Your task to perform on an android device: Search for "logitech g502" on bestbuy, select the first entry, and add it to the cart. Image 0: 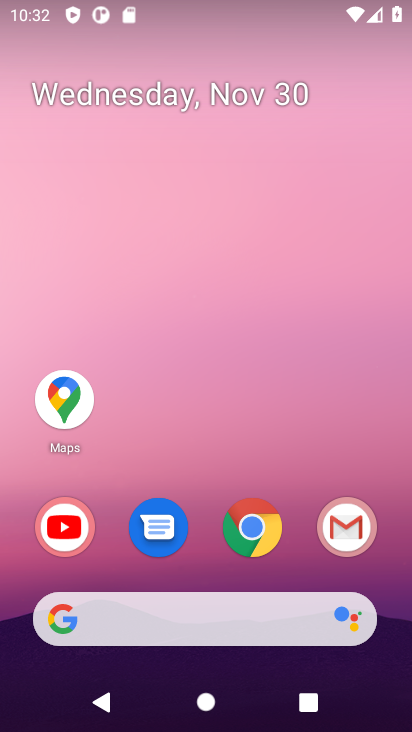
Step 0: click (248, 526)
Your task to perform on an android device: Search for "logitech g502" on bestbuy, select the first entry, and add it to the cart. Image 1: 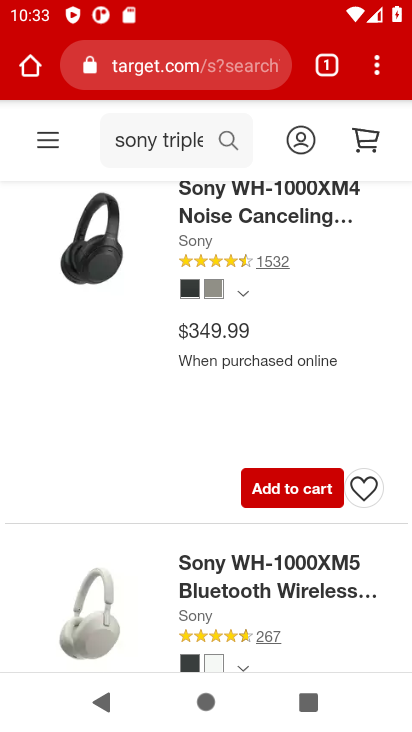
Step 1: click (172, 62)
Your task to perform on an android device: Search for "logitech g502" on bestbuy, select the first entry, and add it to the cart. Image 2: 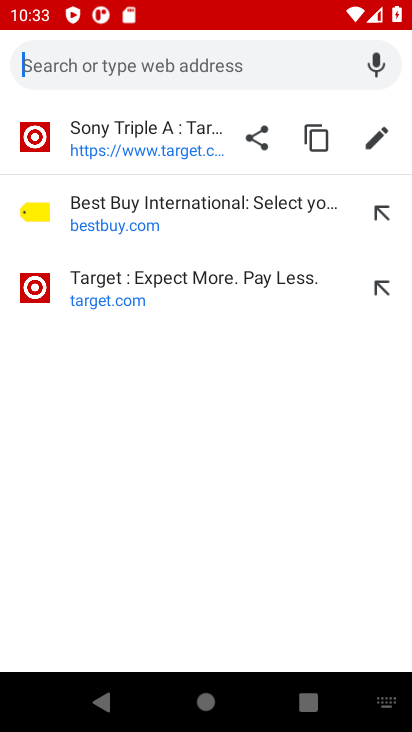
Step 2: click (100, 218)
Your task to perform on an android device: Search for "logitech g502" on bestbuy, select the first entry, and add it to the cart. Image 3: 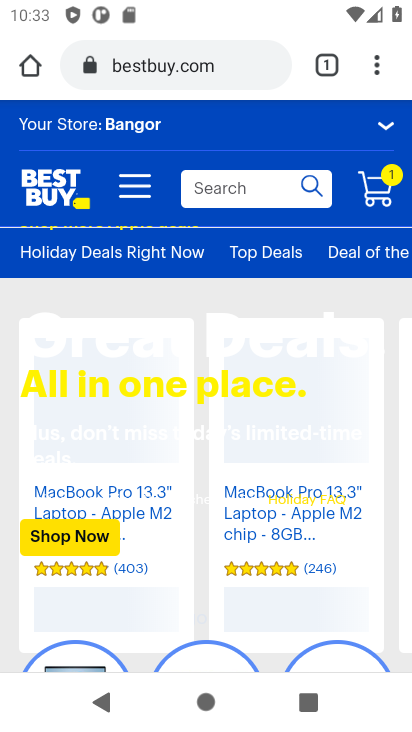
Step 3: click (226, 192)
Your task to perform on an android device: Search for "logitech g502" on bestbuy, select the first entry, and add it to the cart. Image 4: 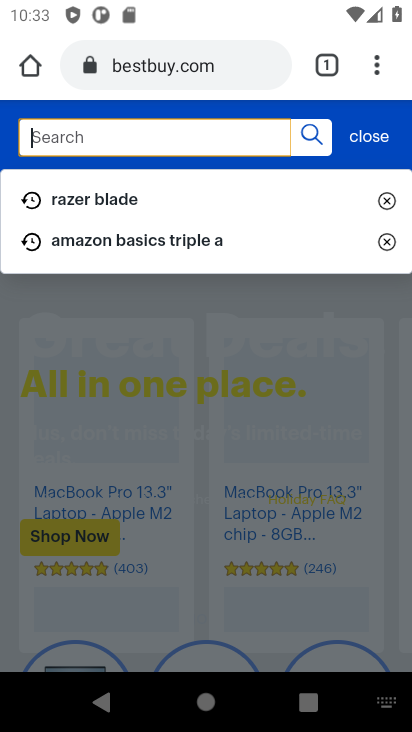
Step 4: type "logitech g502"
Your task to perform on an android device: Search for "logitech g502" on bestbuy, select the first entry, and add it to the cart. Image 5: 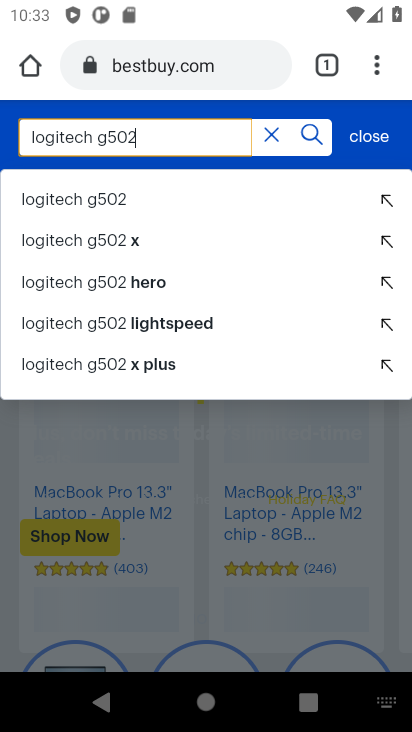
Step 5: click (86, 206)
Your task to perform on an android device: Search for "logitech g502" on bestbuy, select the first entry, and add it to the cart. Image 6: 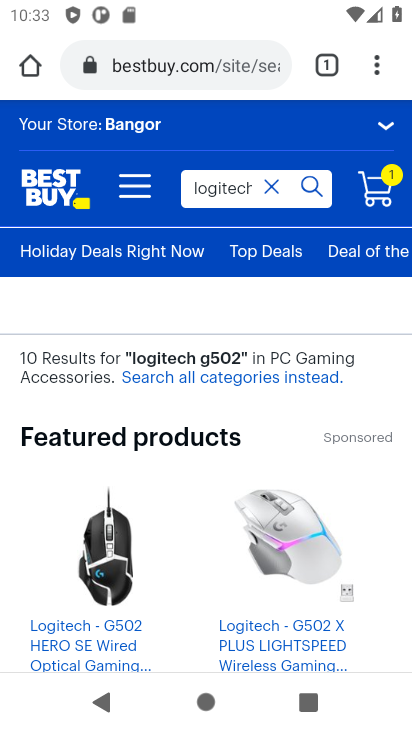
Step 6: drag from (354, 481) to (341, 222)
Your task to perform on an android device: Search for "logitech g502" on bestbuy, select the first entry, and add it to the cart. Image 7: 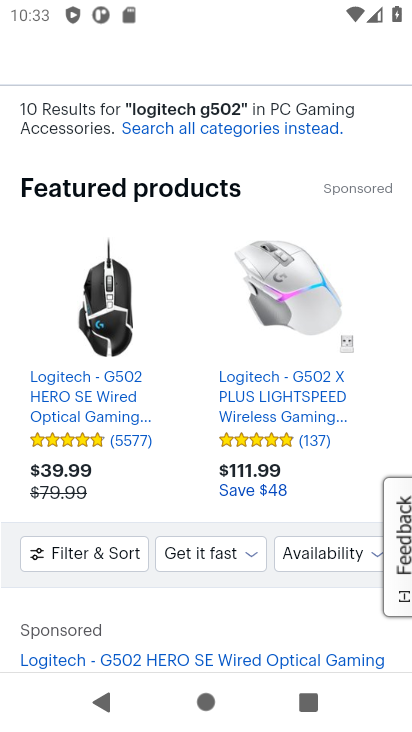
Step 7: drag from (299, 470) to (288, 159)
Your task to perform on an android device: Search for "logitech g502" on bestbuy, select the first entry, and add it to the cart. Image 8: 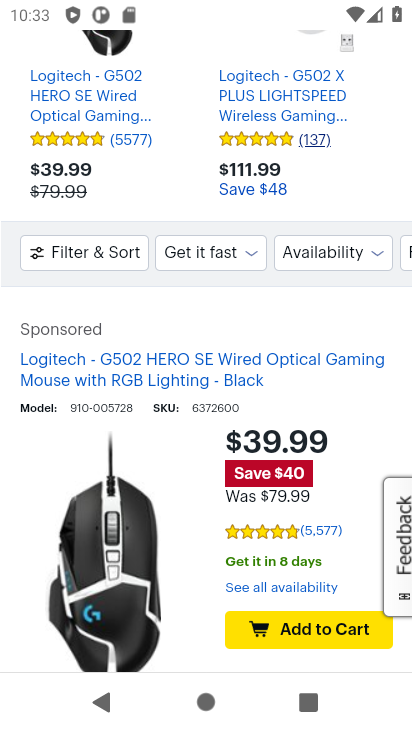
Step 8: drag from (256, 451) to (253, 225)
Your task to perform on an android device: Search for "logitech g502" on bestbuy, select the first entry, and add it to the cart. Image 9: 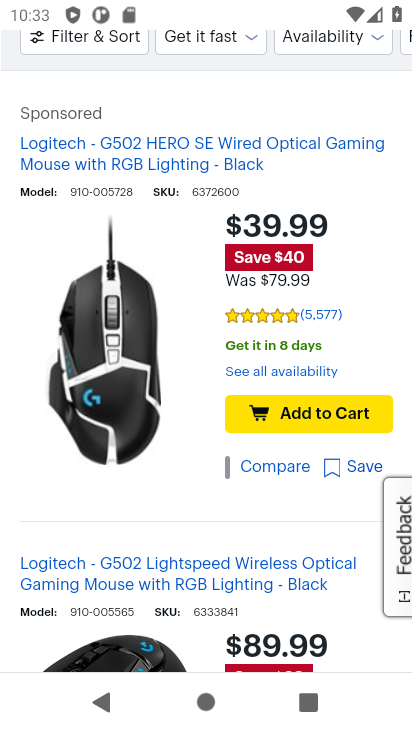
Step 9: click (291, 418)
Your task to perform on an android device: Search for "logitech g502" on bestbuy, select the first entry, and add it to the cart. Image 10: 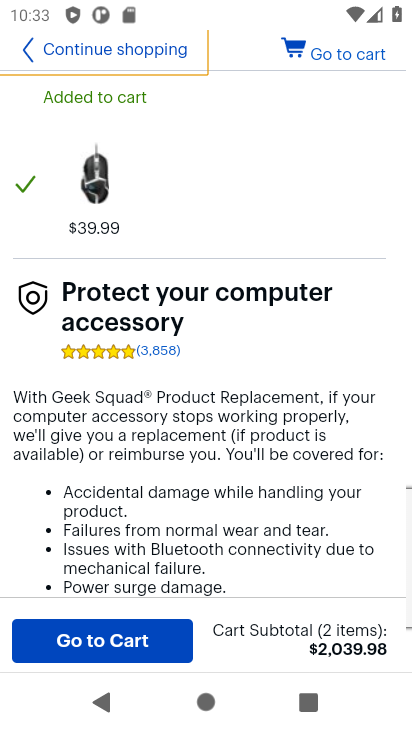
Step 10: task complete